Your task to perform on an android device: add a contact in the contacts app Image 0: 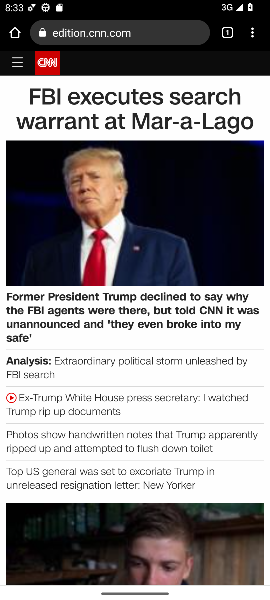
Step 0: press home button
Your task to perform on an android device: add a contact in the contacts app Image 1: 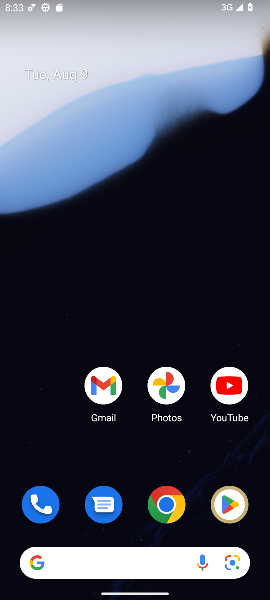
Step 1: drag from (135, 523) to (85, 175)
Your task to perform on an android device: add a contact in the contacts app Image 2: 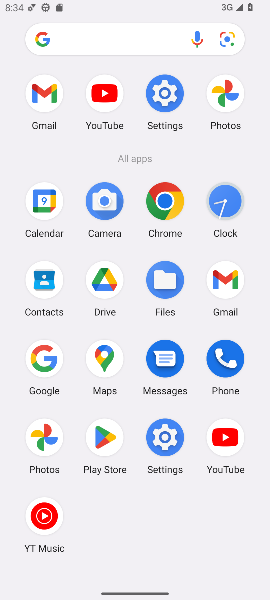
Step 2: click (42, 285)
Your task to perform on an android device: add a contact in the contacts app Image 3: 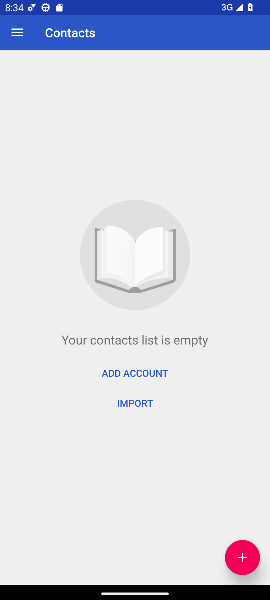
Step 3: click (242, 559)
Your task to perform on an android device: add a contact in the contacts app Image 4: 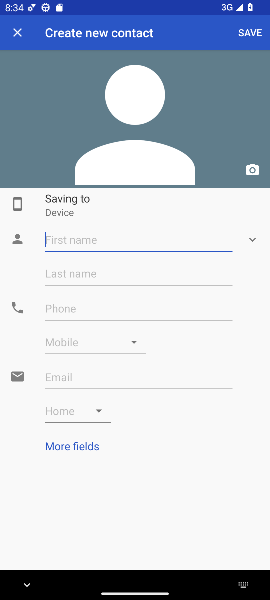
Step 4: type "gh"
Your task to perform on an android device: add a contact in the contacts app Image 5: 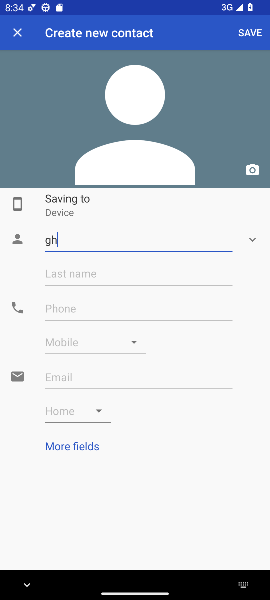
Step 5: click (79, 308)
Your task to perform on an android device: add a contact in the contacts app Image 6: 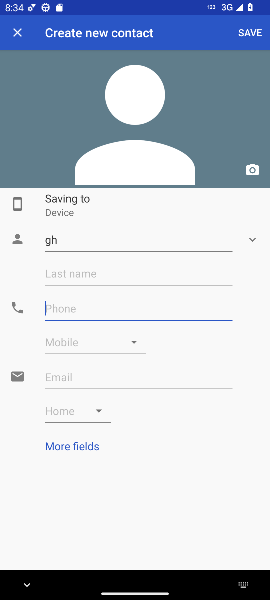
Step 6: type "777777"
Your task to perform on an android device: add a contact in the contacts app Image 7: 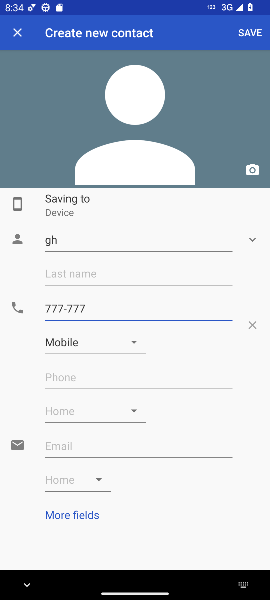
Step 7: click (244, 31)
Your task to perform on an android device: add a contact in the contacts app Image 8: 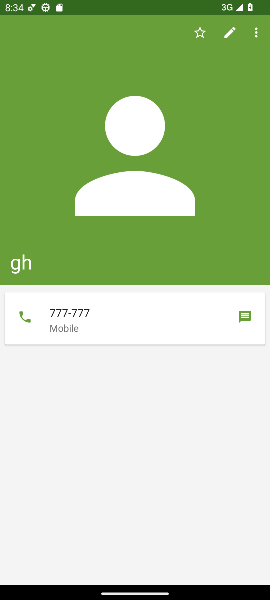
Step 8: task complete